Your task to perform on an android device: turn on sleep mode Image 0: 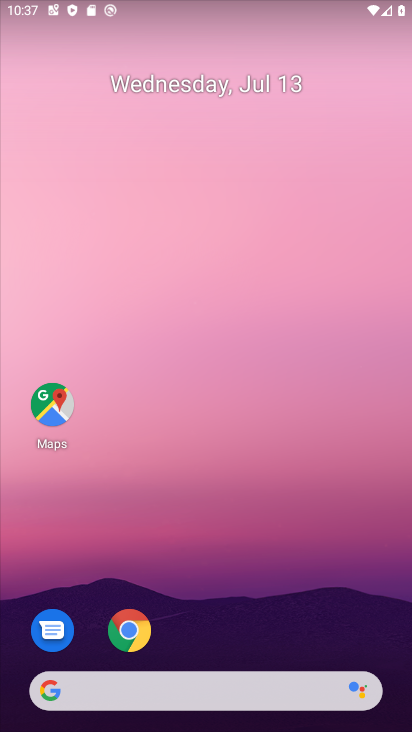
Step 0: drag from (262, 615) to (399, 209)
Your task to perform on an android device: turn on sleep mode Image 1: 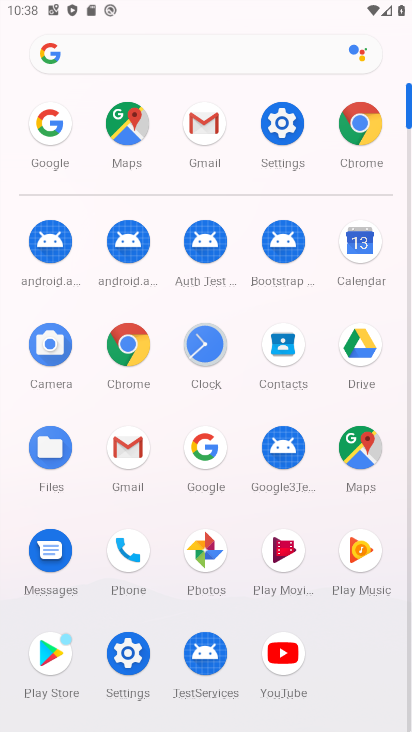
Step 1: click (289, 125)
Your task to perform on an android device: turn on sleep mode Image 2: 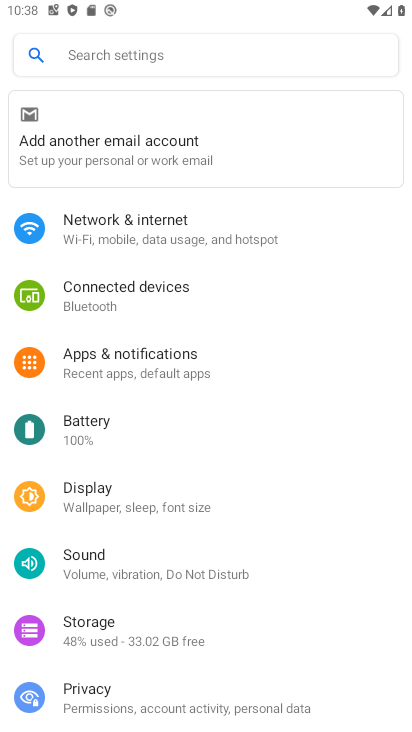
Step 2: click (110, 503)
Your task to perform on an android device: turn on sleep mode Image 3: 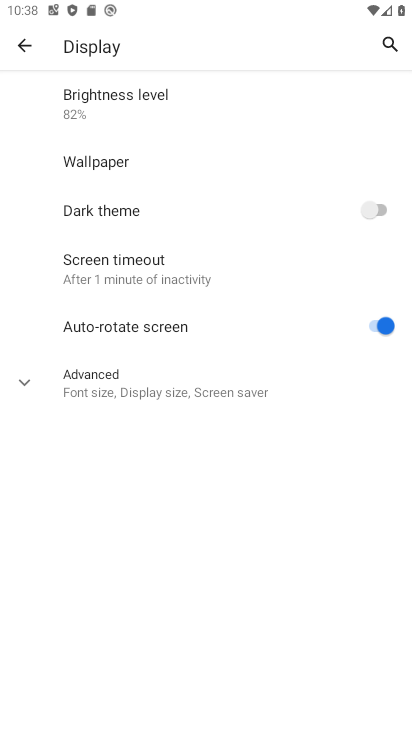
Step 3: click (115, 276)
Your task to perform on an android device: turn on sleep mode Image 4: 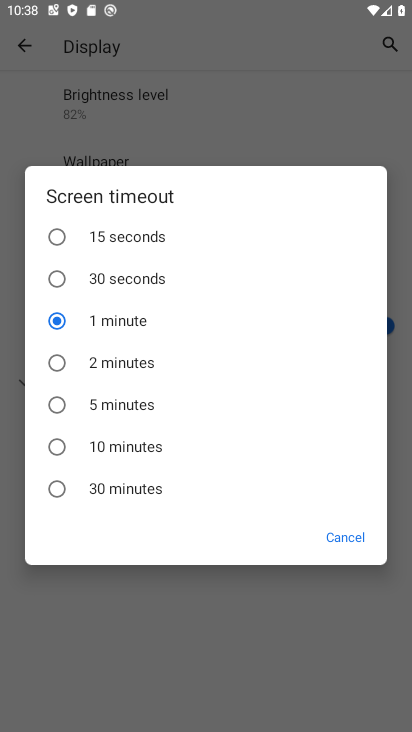
Step 4: task complete